Your task to perform on an android device: Open notification settings Image 0: 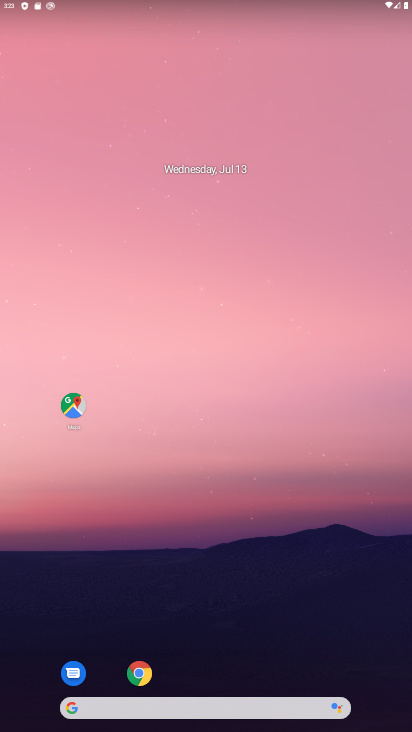
Step 0: drag from (194, 528) to (214, 385)
Your task to perform on an android device: Open notification settings Image 1: 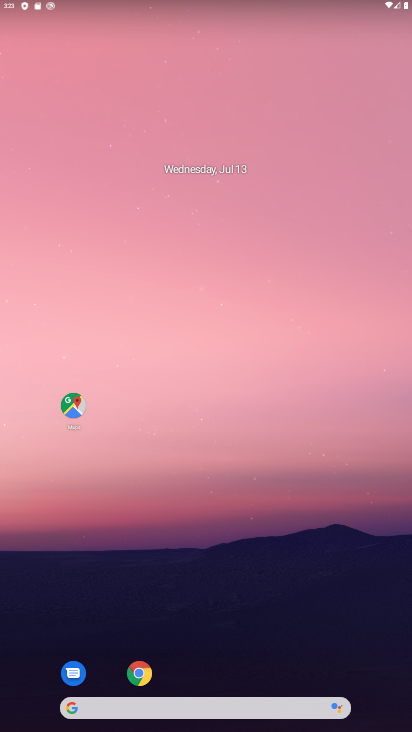
Step 1: drag from (247, 695) to (246, 320)
Your task to perform on an android device: Open notification settings Image 2: 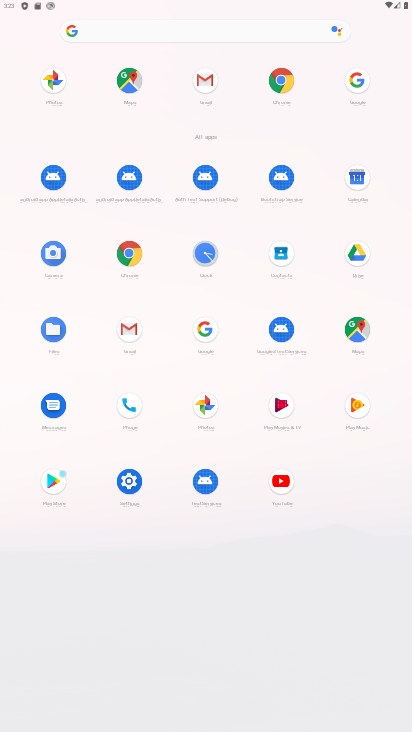
Step 2: click (130, 475)
Your task to perform on an android device: Open notification settings Image 3: 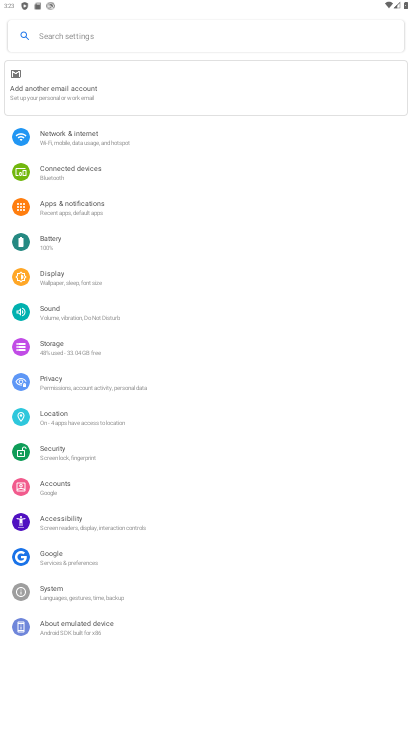
Step 3: click (64, 199)
Your task to perform on an android device: Open notification settings Image 4: 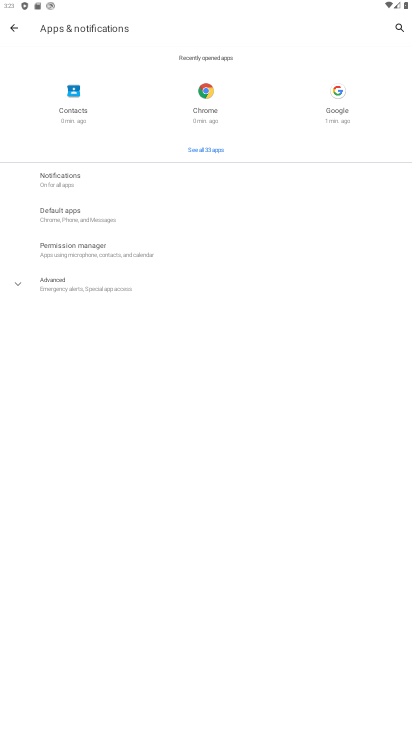
Step 4: click (62, 285)
Your task to perform on an android device: Open notification settings Image 5: 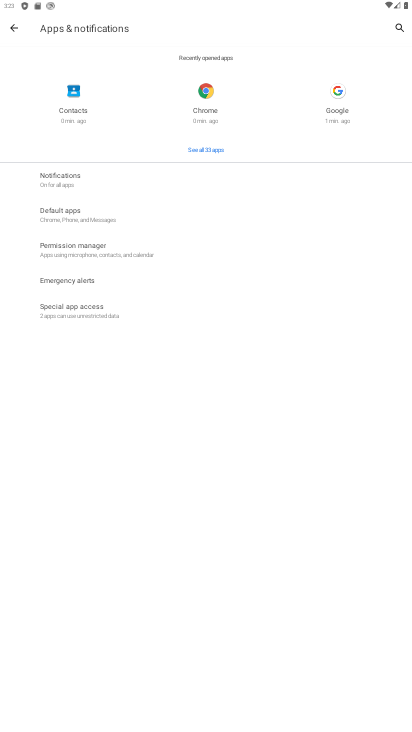
Step 5: task complete